Your task to perform on an android device: Go to accessibility settings Image 0: 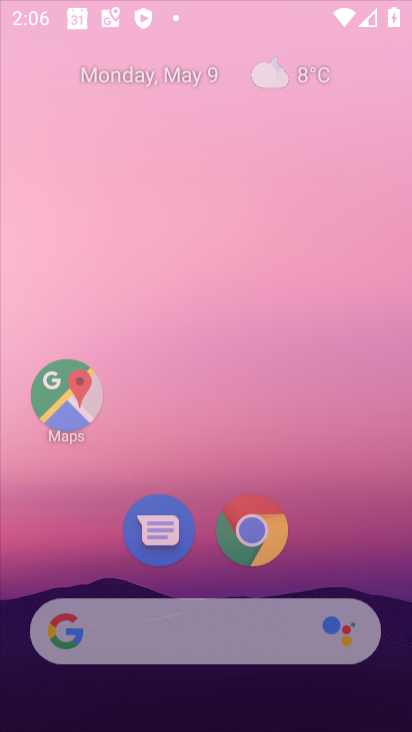
Step 0: click (255, 555)
Your task to perform on an android device: Go to accessibility settings Image 1: 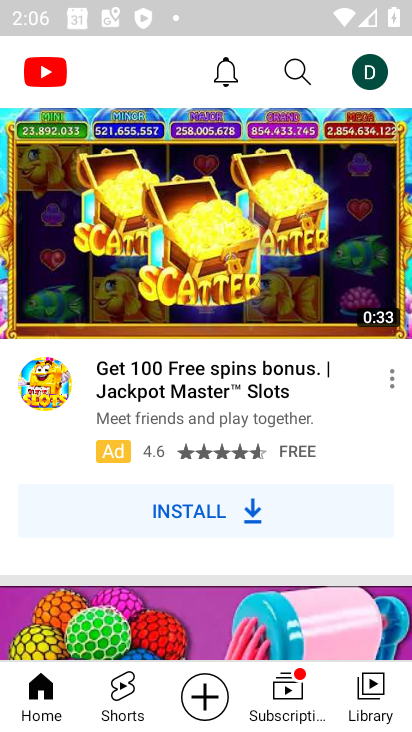
Step 1: press home button
Your task to perform on an android device: Go to accessibility settings Image 2: 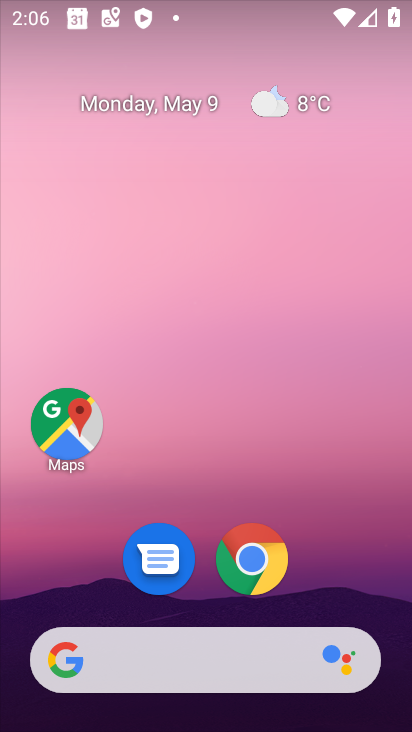
Step 2: drag from (315, 502) to (236, 110)
Your task to perform on an android device: Go to accessibility settings Image 3: 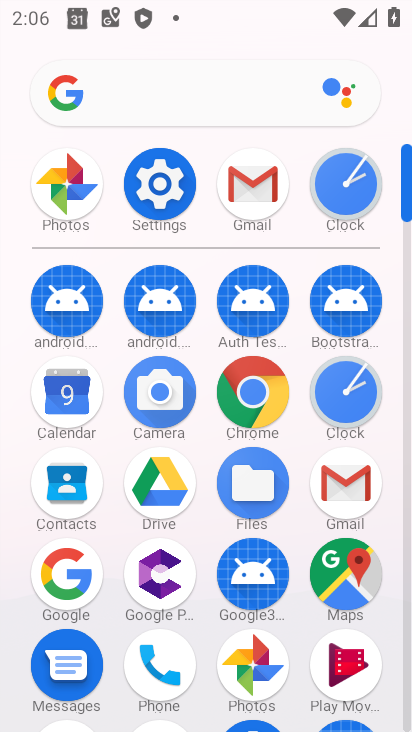
Step 3: click (157, 177)
Your task to perform on an android device: Go to accessibility settings Image 4: 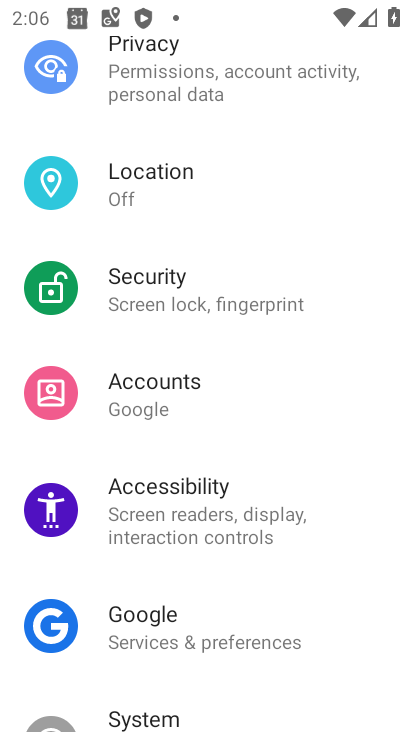
Step 4: click (169, 484)
Your task to perform on an android device: Go to accessibility settings Image 5: 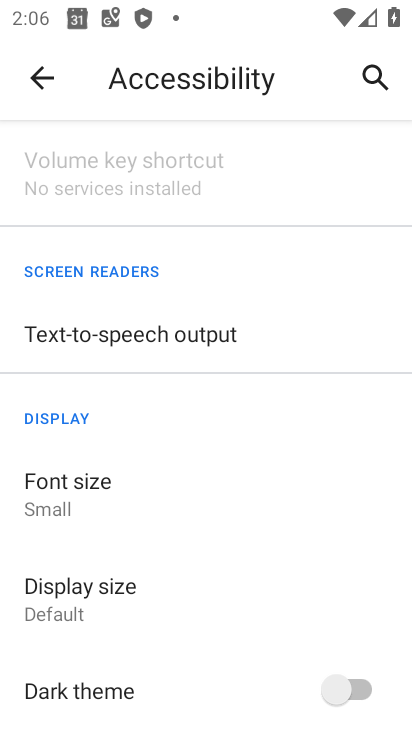
Step 5: task complete